Your task to perform on an android device: change the clock display to analog Image 0: 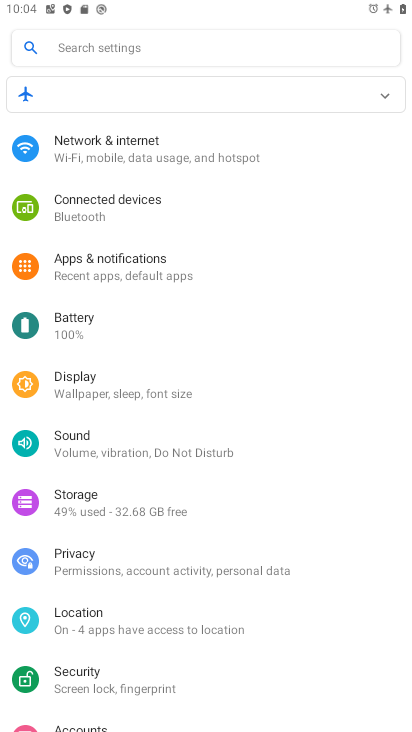
Step 0: press home button
Your task to perform on an android device: change the clock display to analog Image 1: 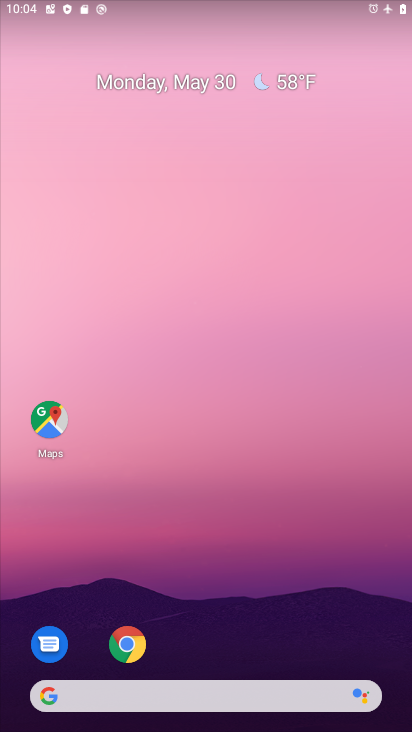
Step 1: drag from (360, 661) to (247, 81)
Your task to perform on an android device: change the clock display to analog Image 2: 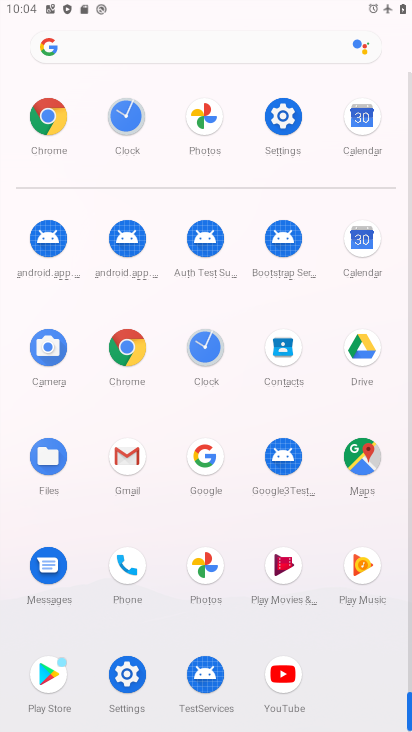
Step 2: click (204, 351)
Your task to perform on an android device: change the clock display to analog Image 3: 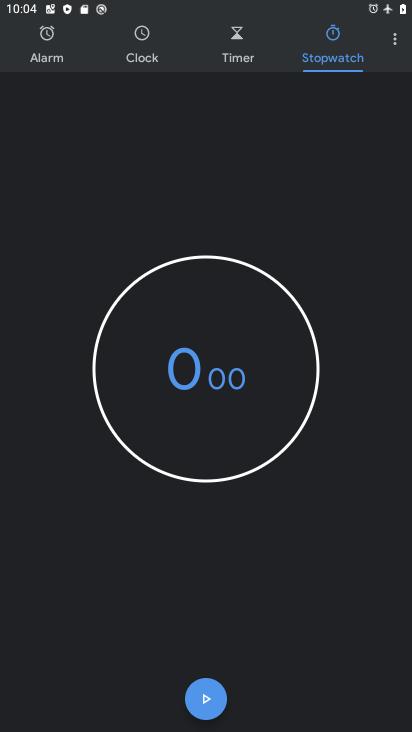
Step 3: click (395, 43)
Your task to perform on an android device: change the clock display to analog Image 4: 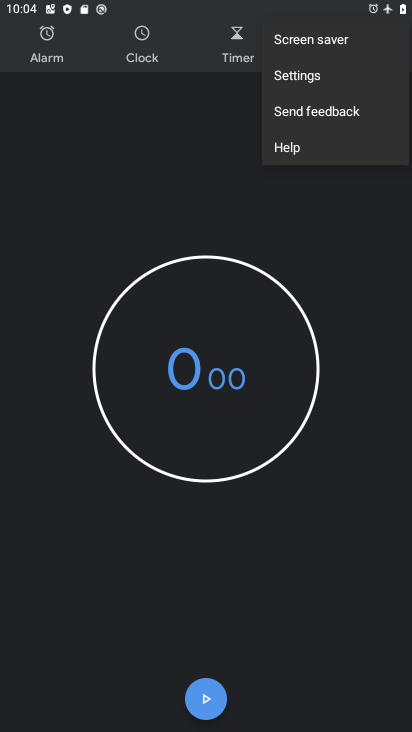
Step 4: click (303, 77)
Your task to perform on an android device: change the clock display to analog Image 5: 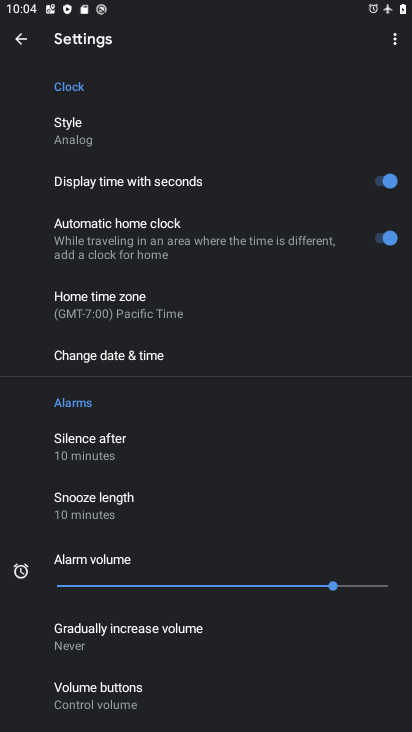
Step 5: task complete